Your task to perform on an android device: Open Yahoo.com Image 0: 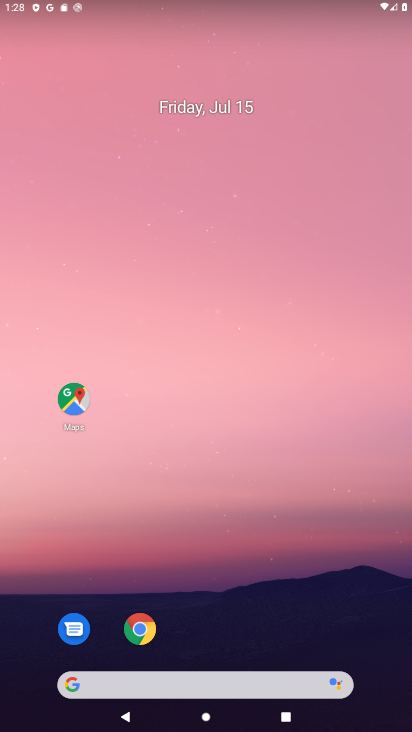
Step 0: click (139, 622)
Your task to perform on an android device: Open Yahoo.com Image 1: 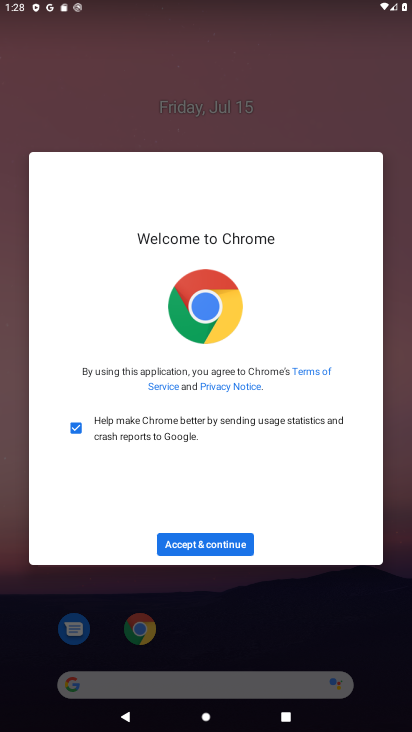
Step 1: click (207, 546)
Your task to perform on an android device: Open Yahoo.com Image 2: 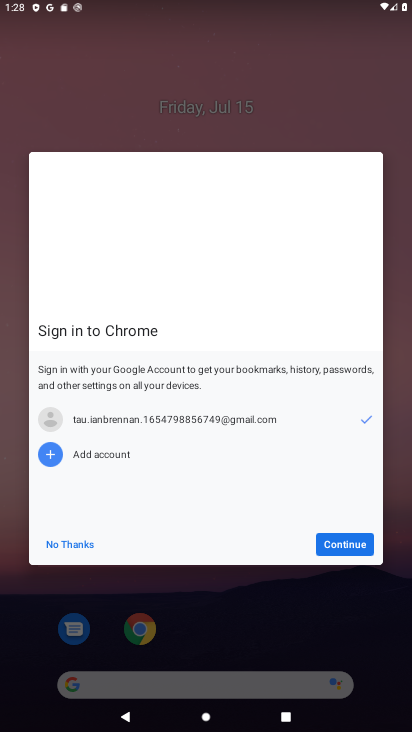
Step 2: click (337, 544)
Your task to perform on an android device: Open Yahoo.com Image 3: 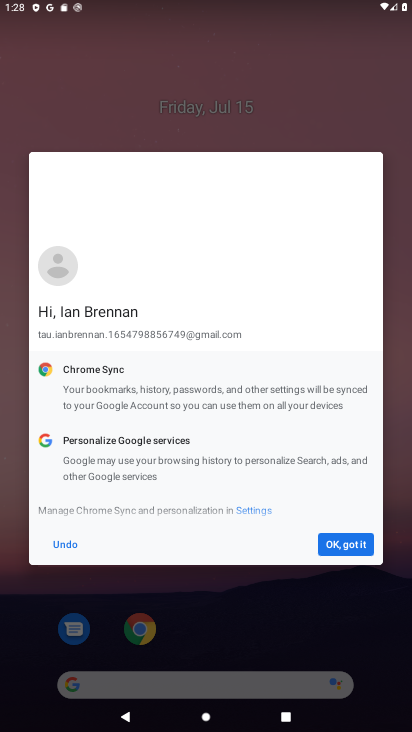
Step 3: click (337, 544)
Your task to perform on an android device: Open Yahoo.com Image 4: 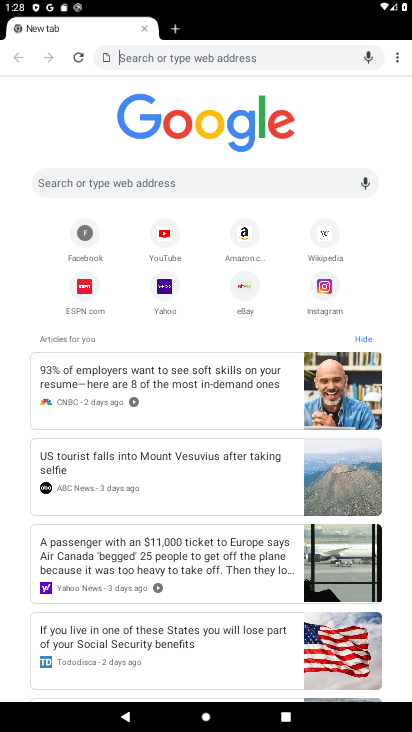
Step 4: click (160, 290)
Your task to perform on an android device: Open Yahoo.com Image 5: 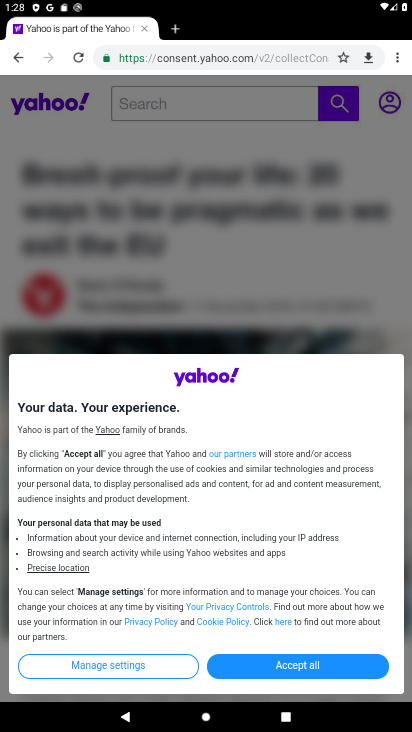
Step 5: task complete